Your task to perform on an android device: Clear all items from cart on ebay. Search for bose quietcomfort 35 on ebay, select the first entry, and add it to the cart. Image 0: 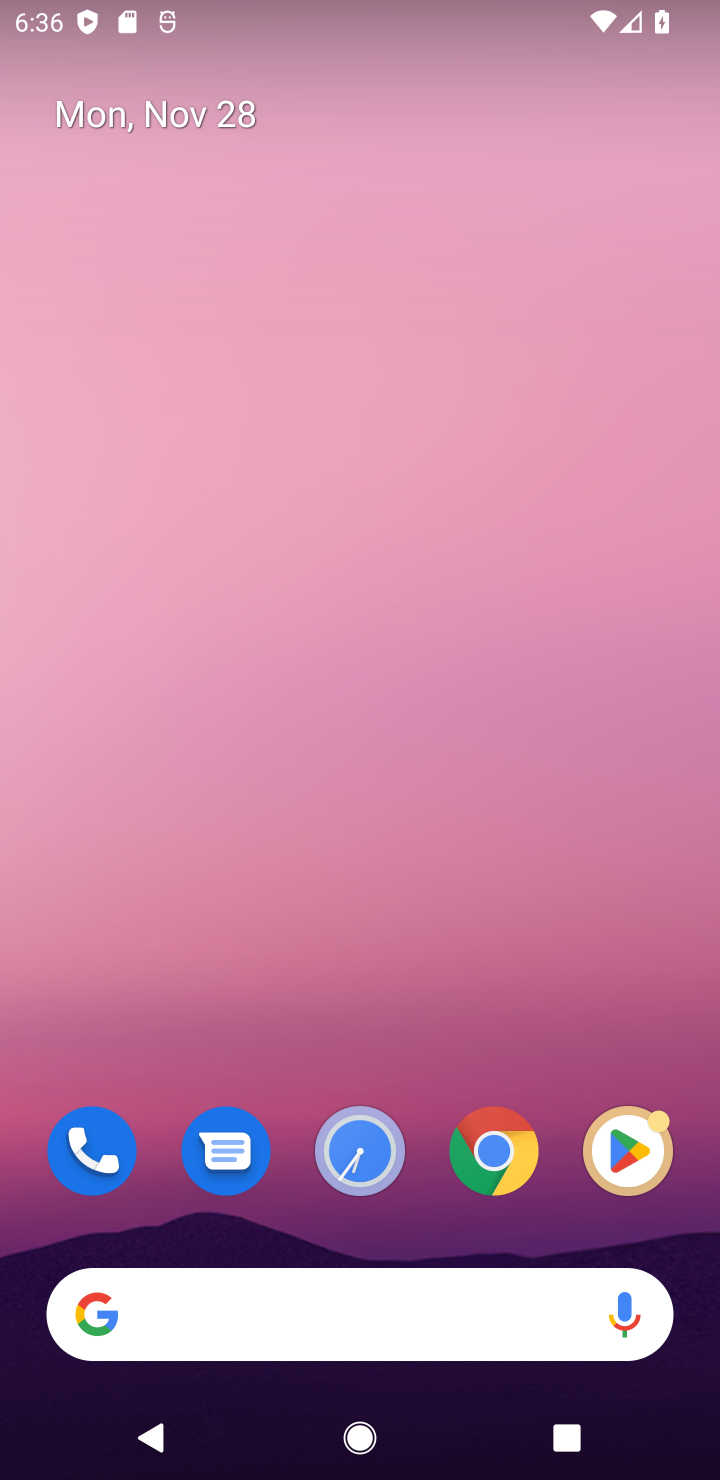
Step 0: click (403, 1341)
Your task to perform on an android device: Clear all items from cart on ebay. Search for bose quietcomfort 35 on ebay, select the first entry, and add it to the cart. Image 1: 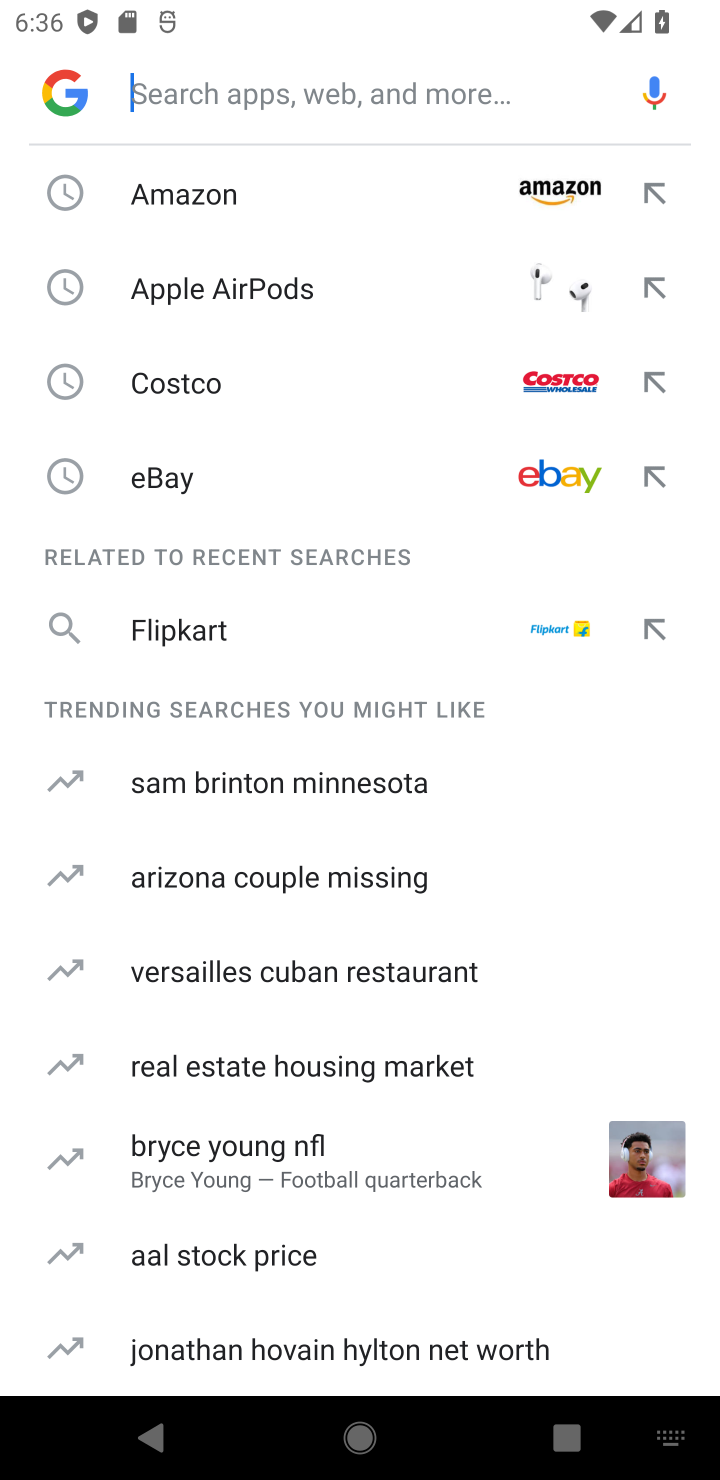
Step 1: click (225, 474)
Your task to perform on an android device: Clear all items from cart on ebay. Search for bose quietcomfort 35 on ebay, select the first entry, and add it to the cart. Image 2: 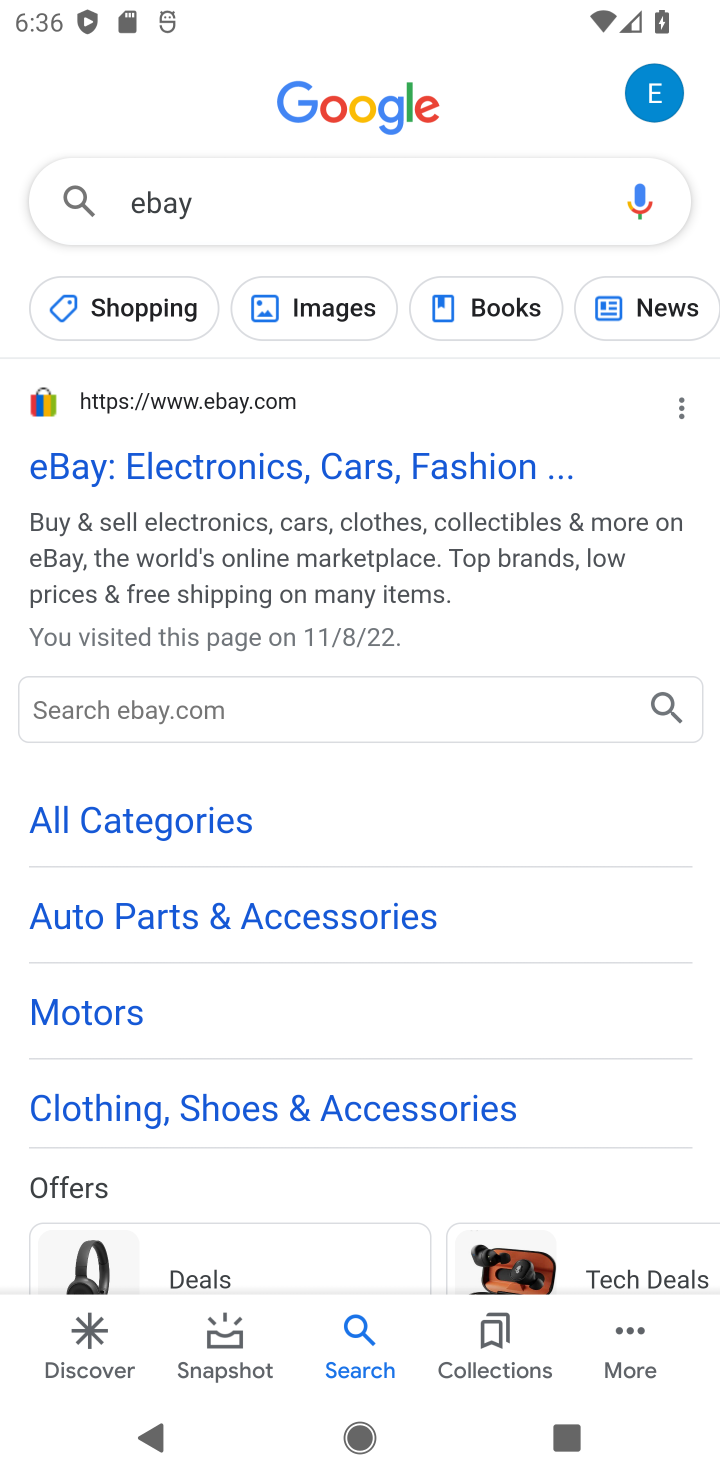
Step 2: click (147, 460)
Your task to perform on an android device: Clear all items from cart on ebay. Search for bose quietcomfort 35 on ebay, select the first entry, and add it to the cart. Image 3: 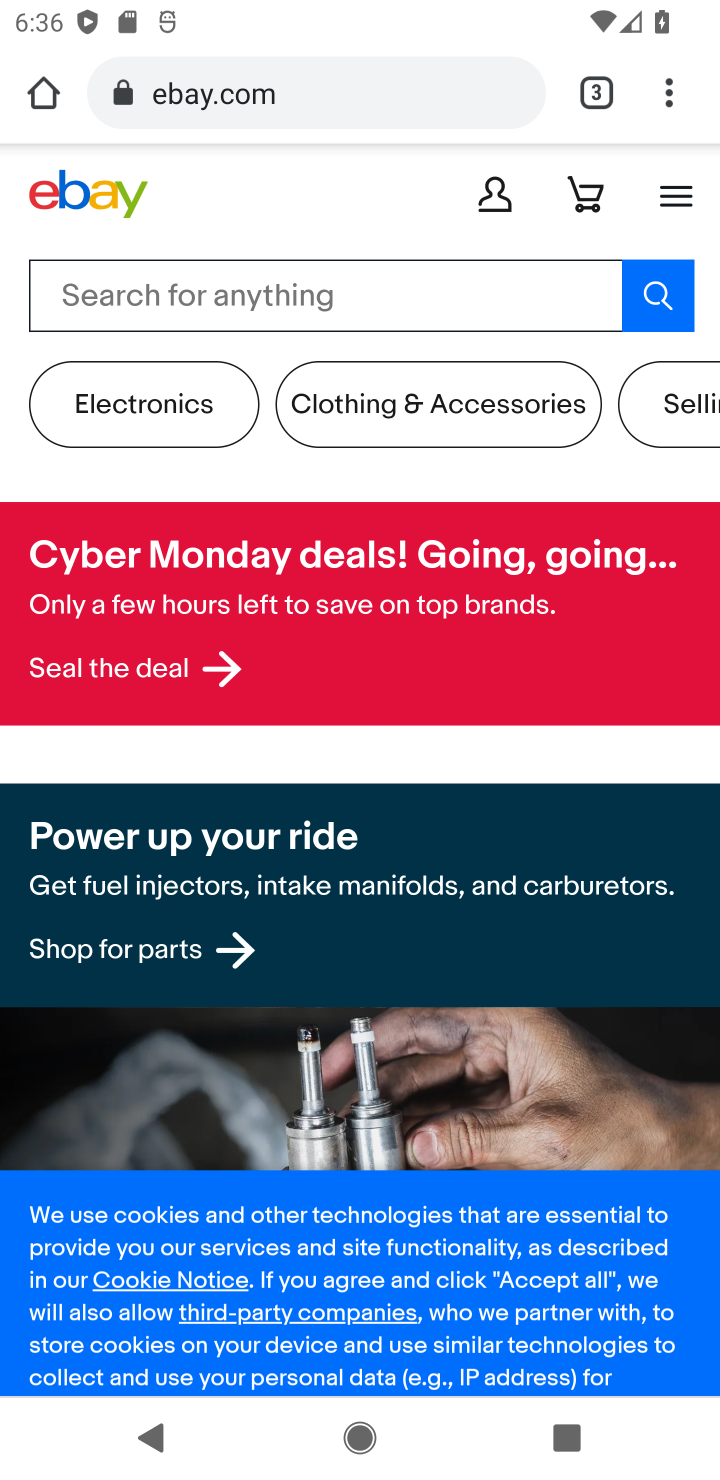
Step 3: click (143, 310)
Your task to perform on an android device: Clear all items from cart on ebay. Search for bose quietcomfort 35 on ebay, select the first entry, and add it to the cart. Image 4: 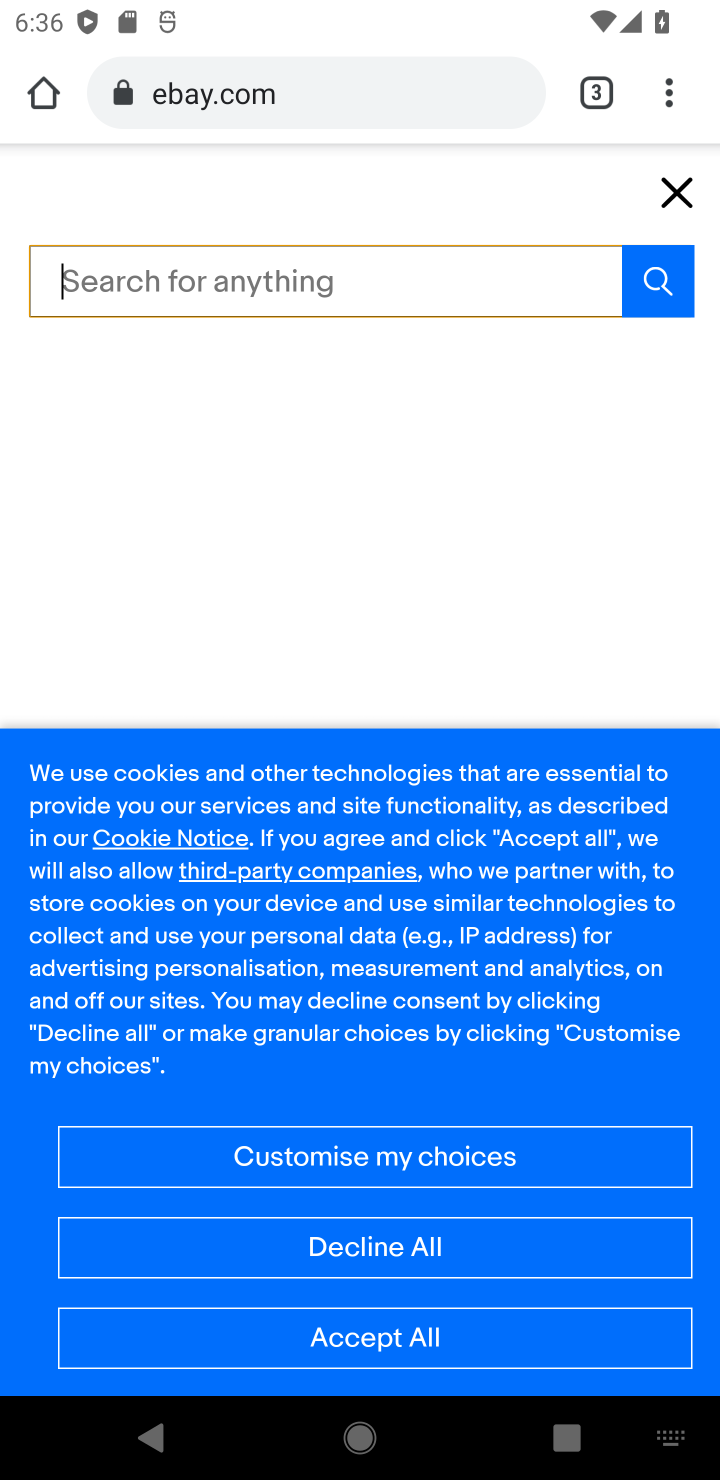
Step 4: type "bose quietcomfort 35"
Your task to perform on an android device: Clear all items from cart on ebay. Search for bose quietcomfort 35 on ebay, select the first entry, and add it to the cart. Image 5: 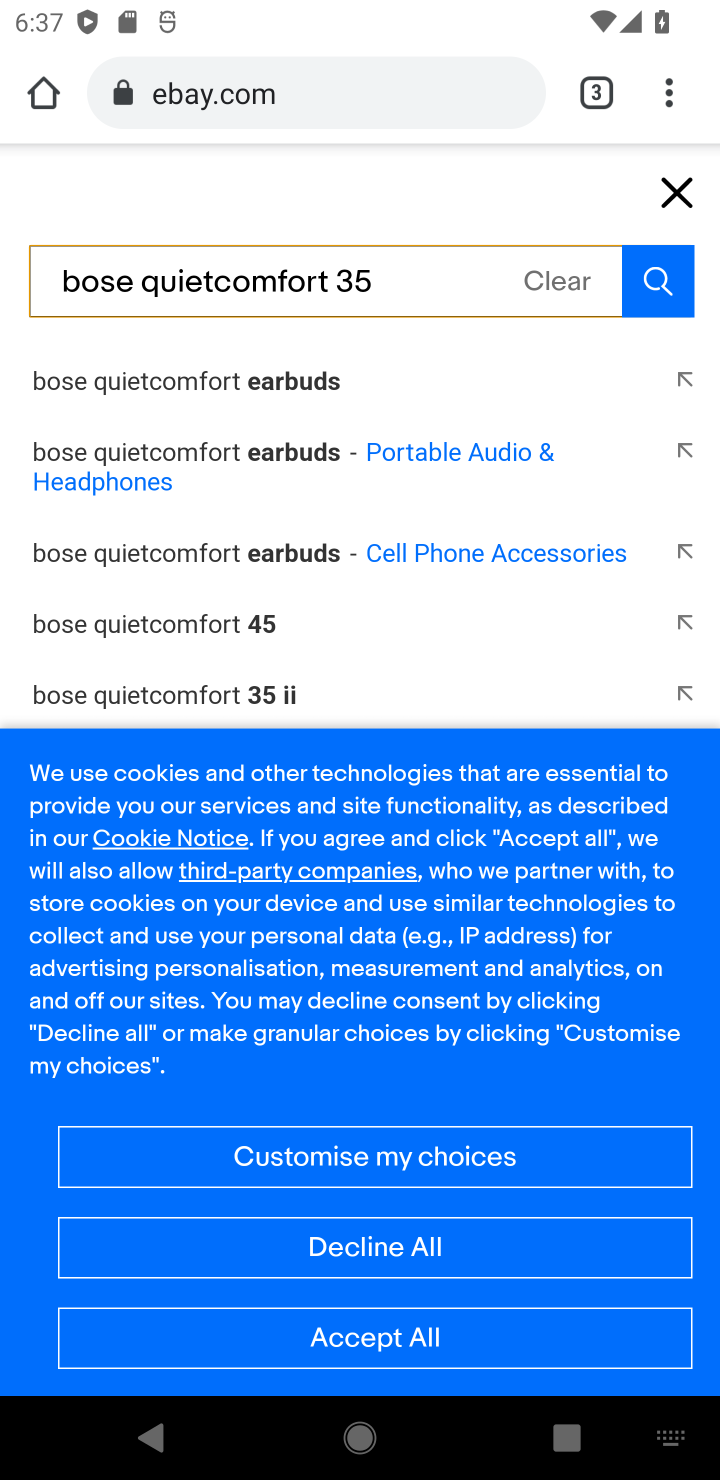
Step 5: click (649, 289)
Your task to perform on an android device: Clear all items from cart on ebay. Search for bose quietcomfort 35 on ebay, select the first entry, and add it to the cart. Image 6: 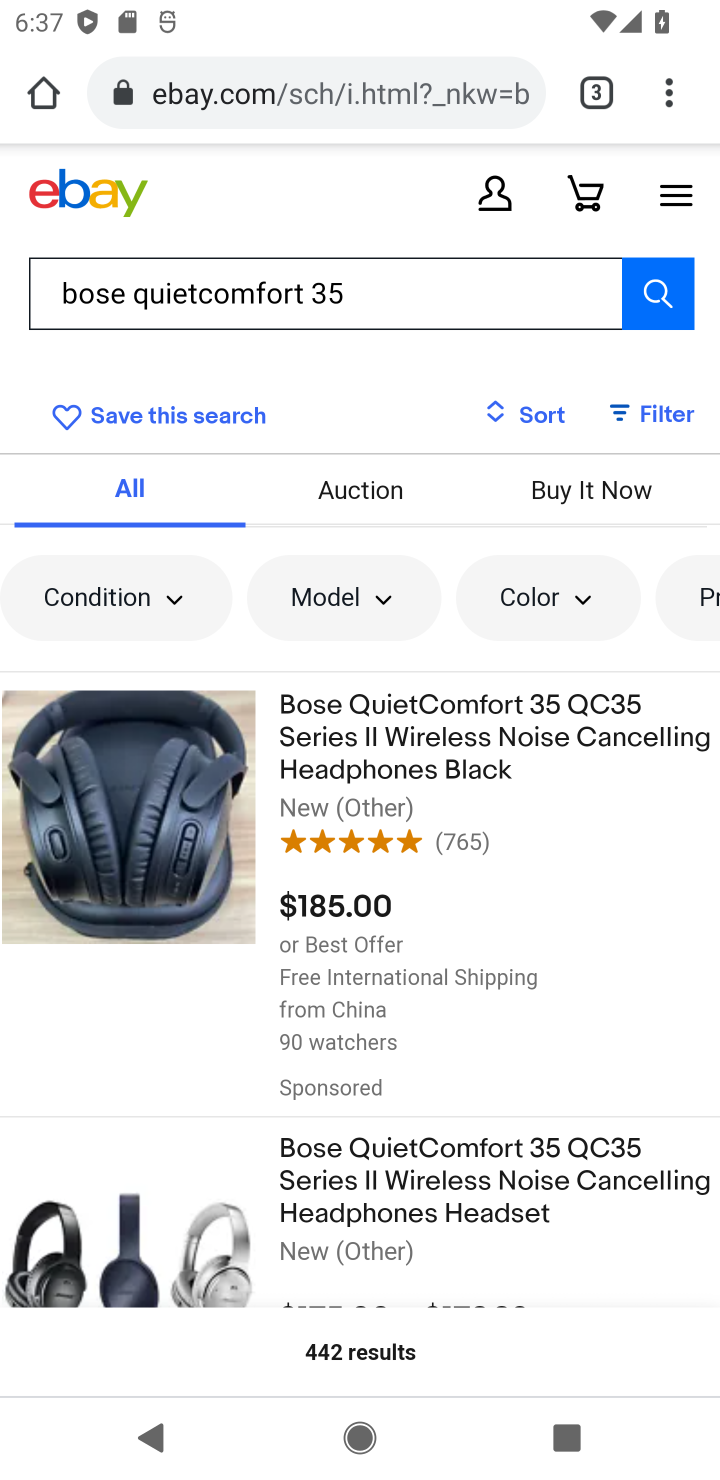
Step 6: click (340, 748)
Your task to perform on an android device: Clear all items from cart on ebay. Search for bose quietcomfort 35 on ebay, select the first entry, and add it to the cart. Image 7: 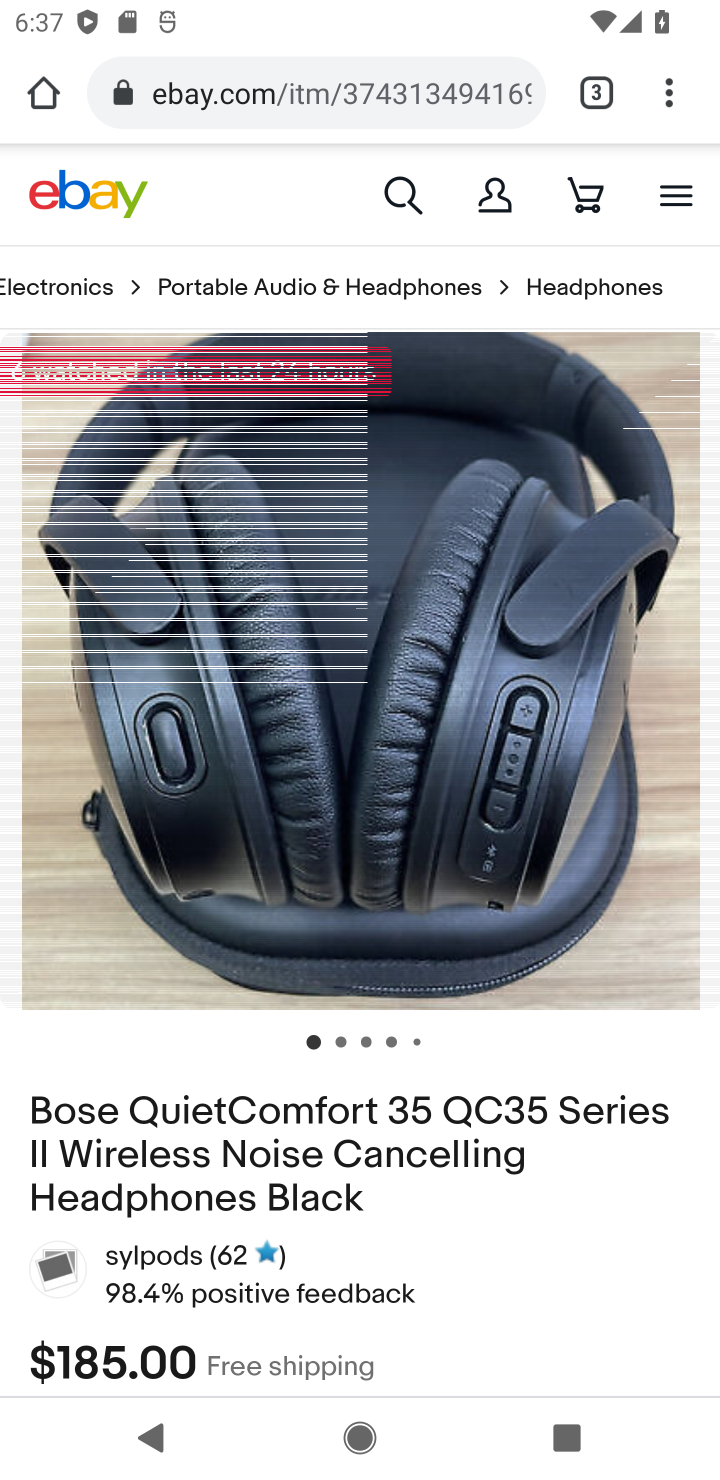
Step 7: drag from (542, 1212) to (511, 380)
Your task to perform on an android device: Clear all items from cart on ebay. Search for bose quietcomfort 35 on ebay, select the first entry, and add it to the cart. Image 8: 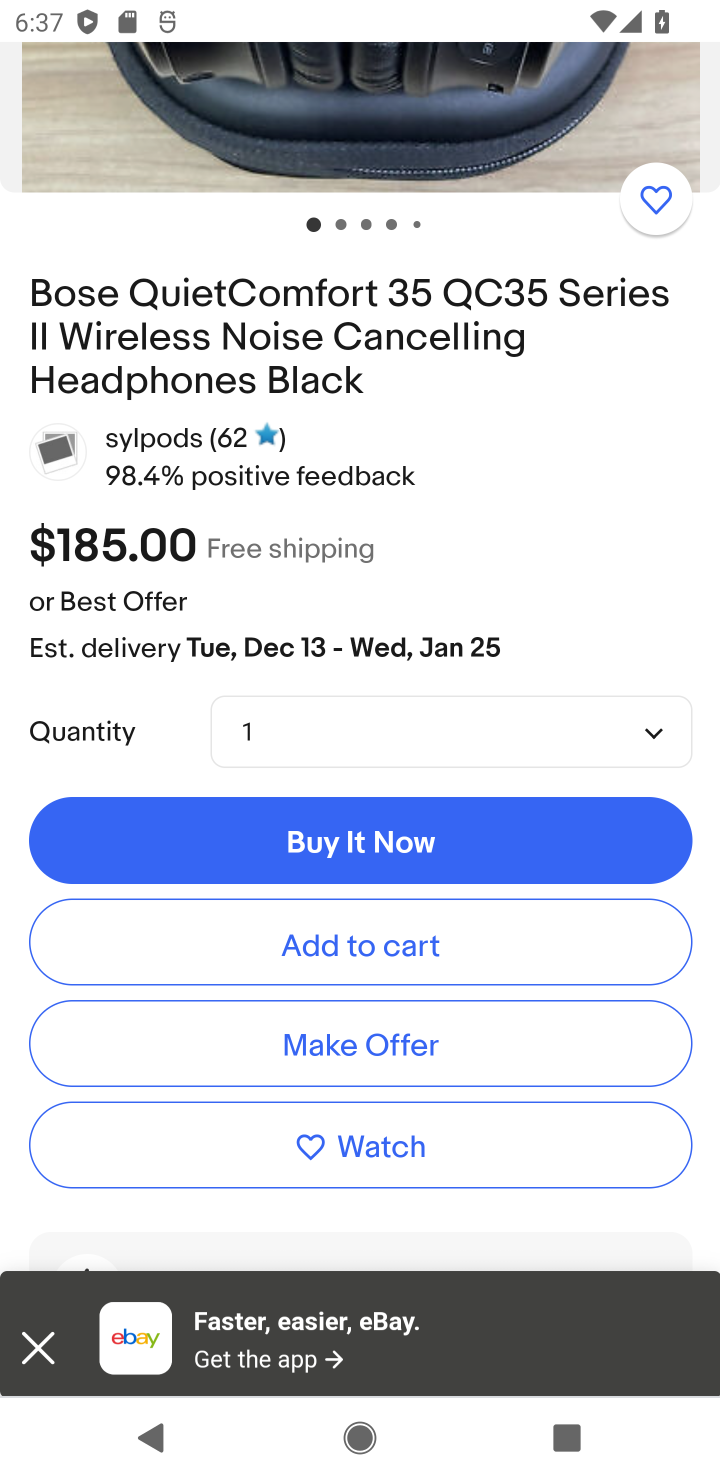
Step 8: drag from (529, 1168) to (532, 568)
Your task to perform on an android device: Clear all items from cart on ebay. Search for bose quietcomfort 35 on ebay, select the first entry, and add it to the cart. Image 9: 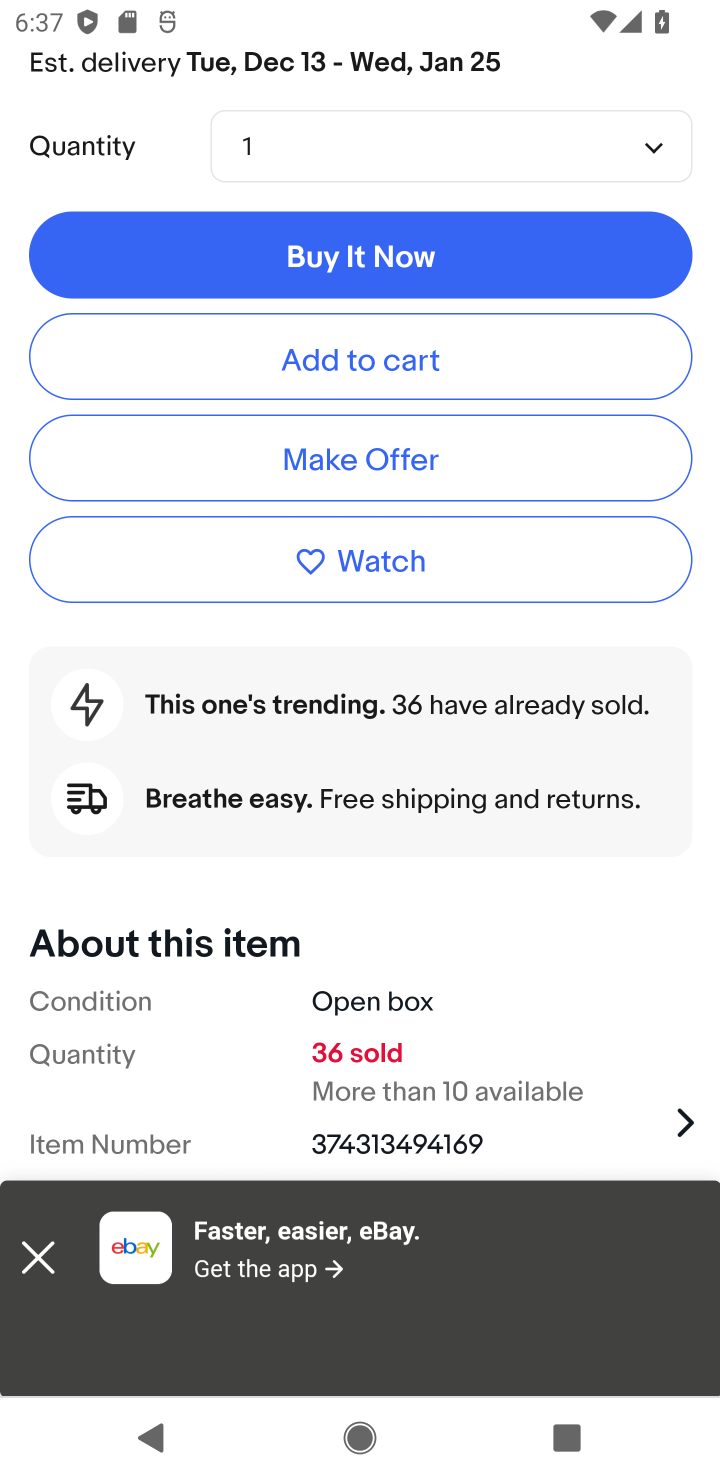
Step 9: click (423, 369)
Your task to perform on an android device: Clear all items from cart on ebay. Search for bose quietcomfort 35 on ebay, select the first entry, and add it to the cart. Image 10: 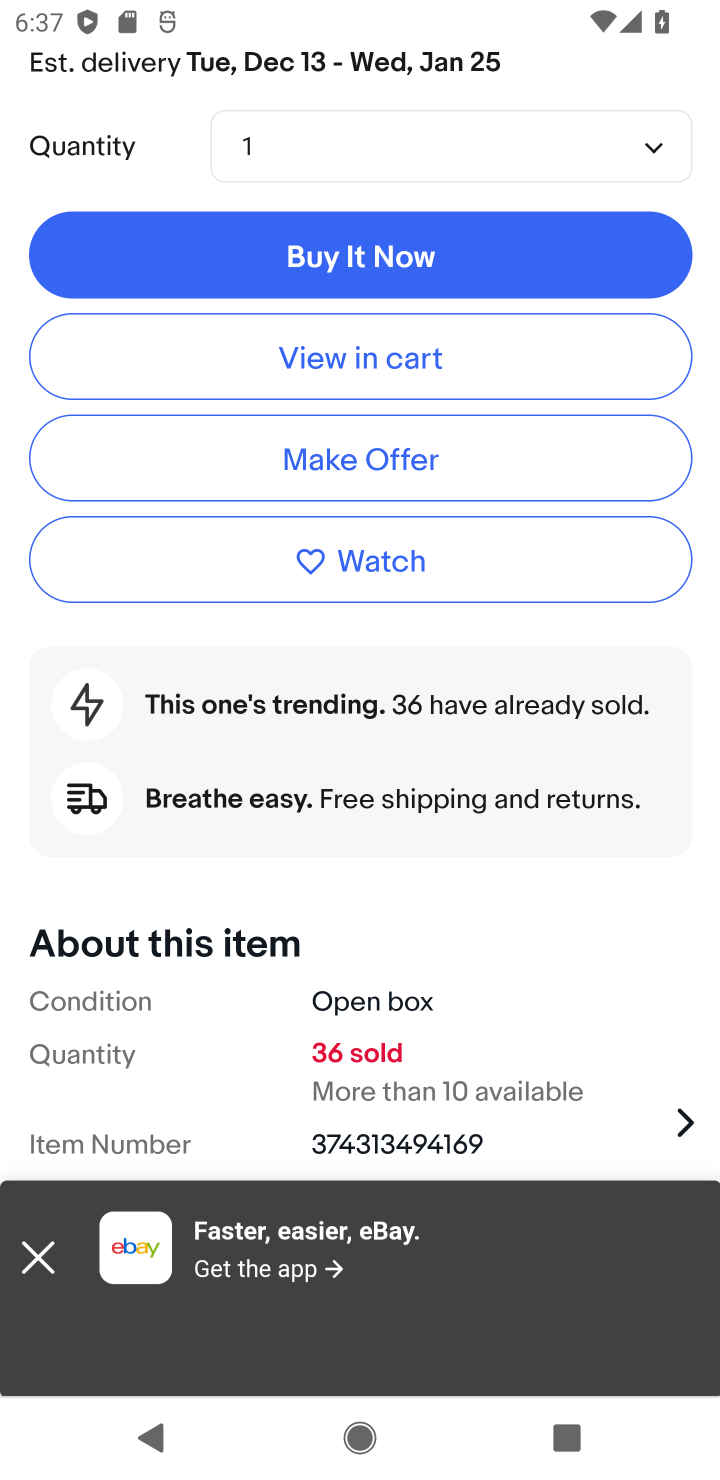
Step 10: task complete